Your task to perform on an android device: toggle priority inbox in the gmail app Image 0: 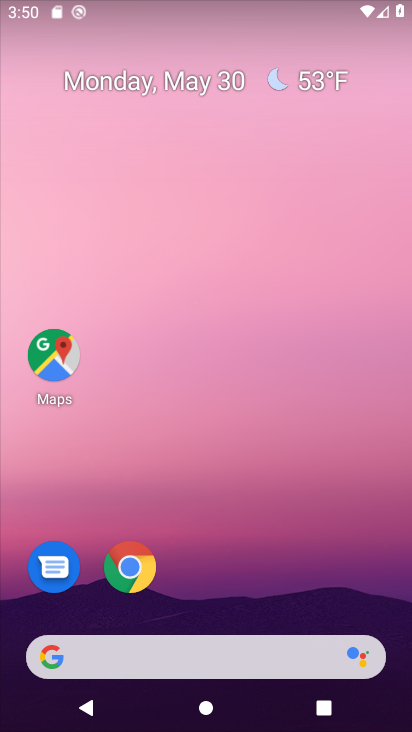
Step 0: drag from (331, 672) to (308, 37)
Your task to perform on an android device: toggle priority inbox in the gmail app Image 1: 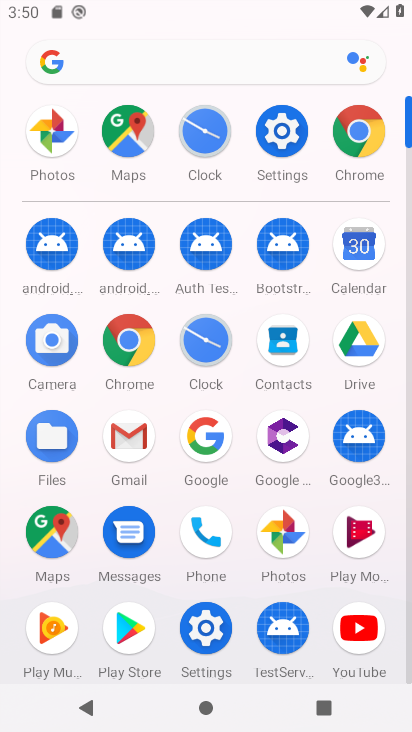
Step 1: click (115, 458)
Your task to perform on an android device: toggle priority inbox in the gmail app Image 2: 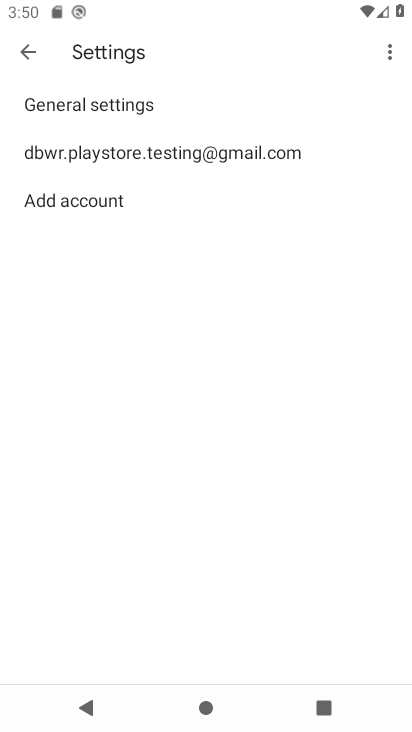
Step 2: click (292, 152)
Your task to perform on an android device: toggle priority inbox in the gmail app Image 3: 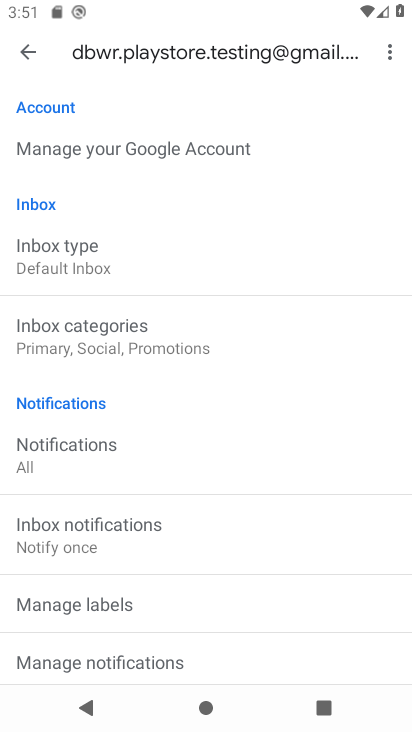
Step 3: drag from (203, 297) to (250, 679)
Your task to perform on an android device: toggle priority inbox in the gmail app Image 4: 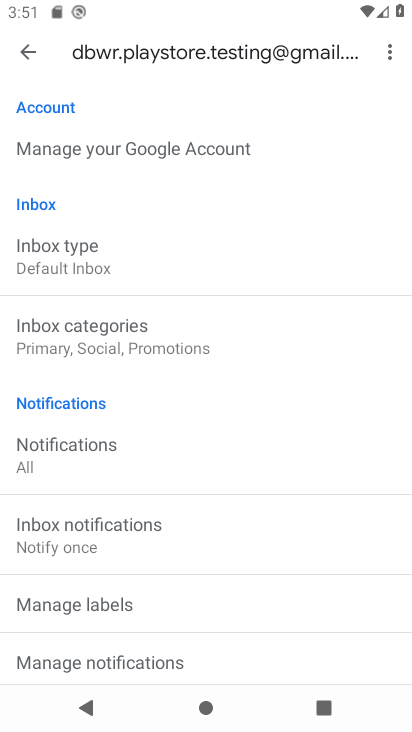
Step 4: click (134, 275)
Your task to perform on an android device: toggle priority inbox in the gmail app Image 5: 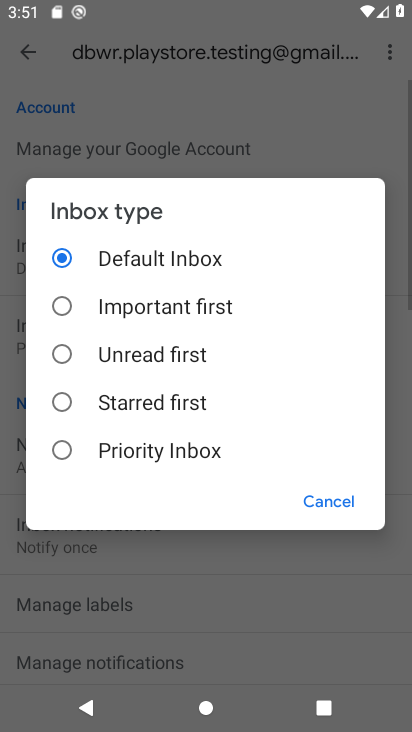
Step 5: click (121, 450)
Your task to perform on an android device: toggle priority inbox in the gmail app Image 6: 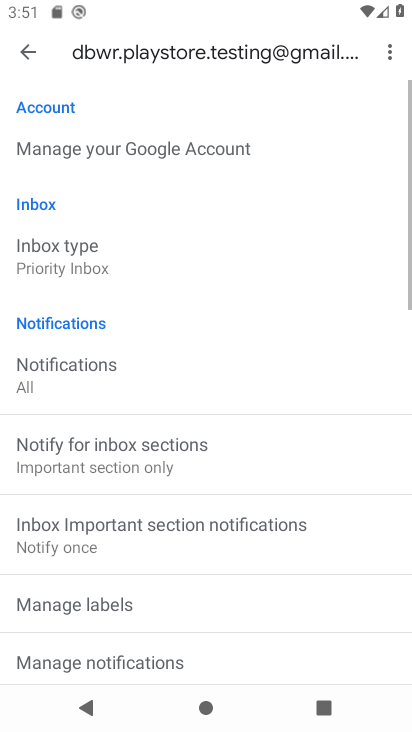
Step 6: task complete